Your task to perform on an android device: turn pop-ups off in chrome Image 0: 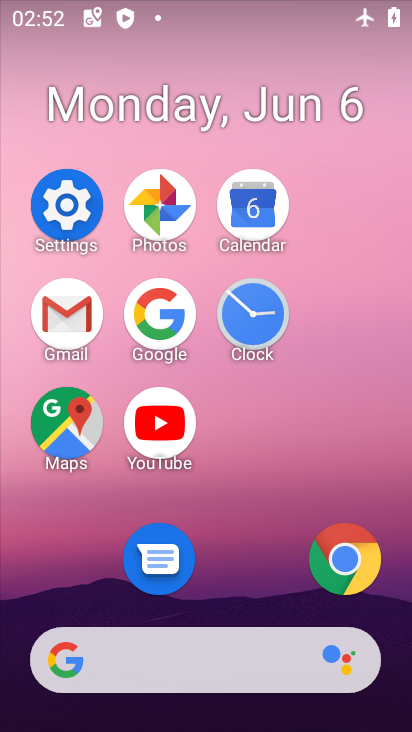
Step 0: click (81, 411)
Your task to perform on an android device: turn pop-ups off in chrome Image 1: 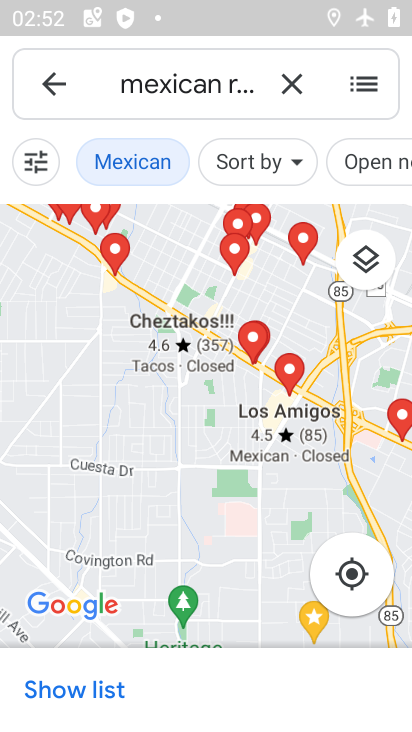
Step 1: press home button
Your task to perform on an android device: turn pop-ups off in chrome Image 2: 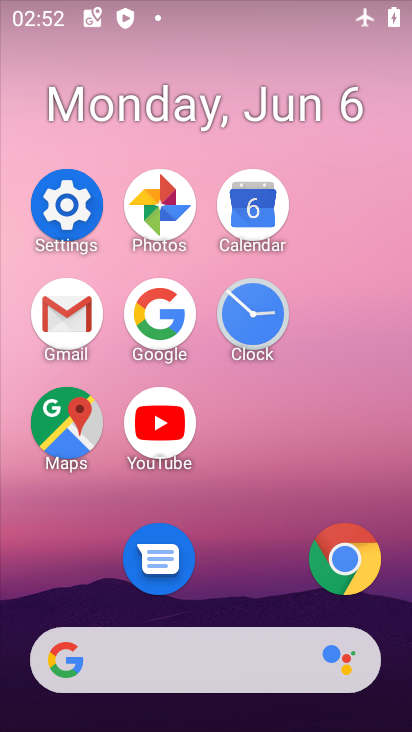
Step 2: click (356, 540)
Your task to perform on an android device: turn pop-ups off in chrome Image 3: 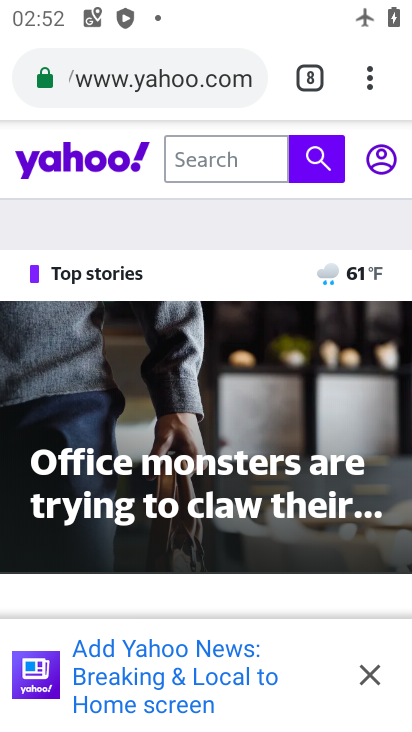
Step 3: click (364, 86)
Your task to perform on an android device: turn pop-ups off in chrome Image 4: 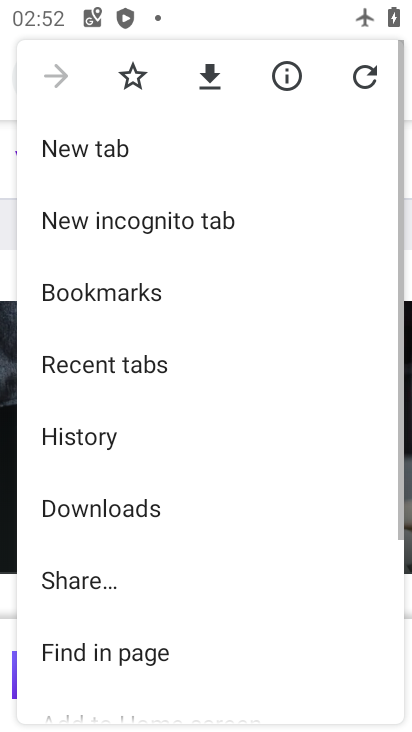
Step 4: drag from (247, 505) to (295, 187)
Your task to perform on an android device: turn pop-ups off in chrome Image 5: 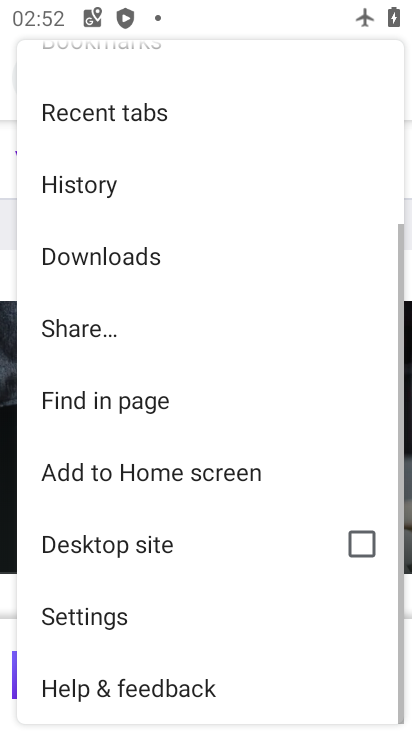
Step 5: click (120, 613)
Your task to perform on an android device: turn pop-ups off in chrome Image 6: 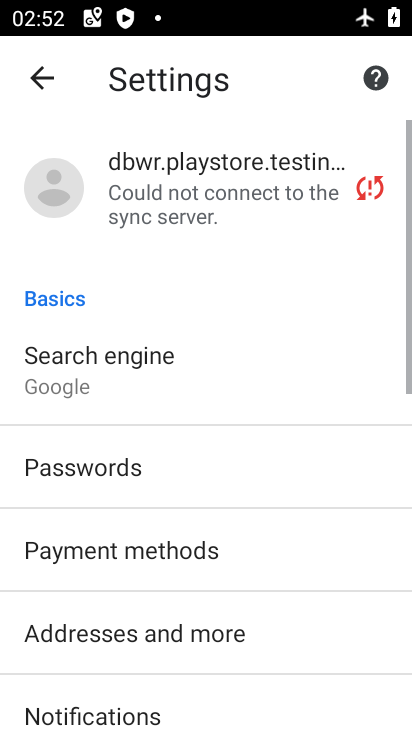
Step 6: drag from (133, 584) to (211, 262)
Your task to perform on an android device: turn pop-ups off in chrome Image 7: 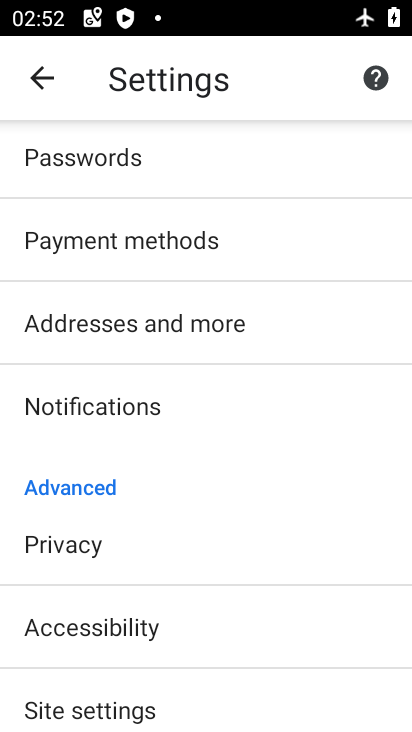
Step 7: drag from (174, 533) to (228, 253)
Your task to perform on an android device: turn pop-ups off in chrome Image 8: 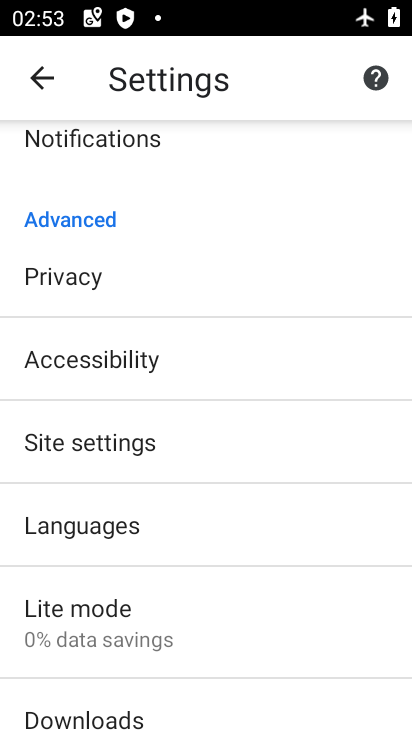
Step 8: click (178, 421)
Your task to perform on an android device: turn pop-ups off in chrome Image 9: 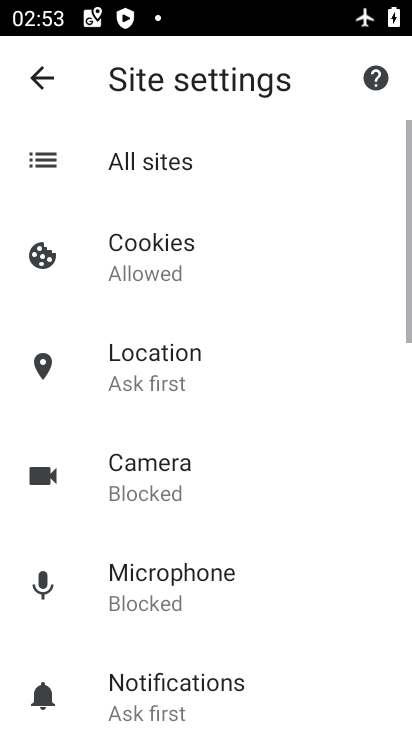
Step 9: drag from (190, 615) to (251, 278)
Your task to perform on an android device: turn pop-ups off in chrome Image 10: 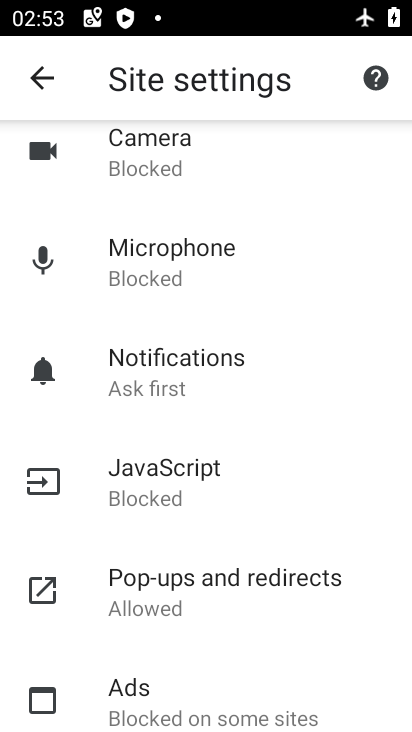
Step 10: click (176, 562)
Your task to perform on an android device: turn pop-ups off in chrome Image 11: 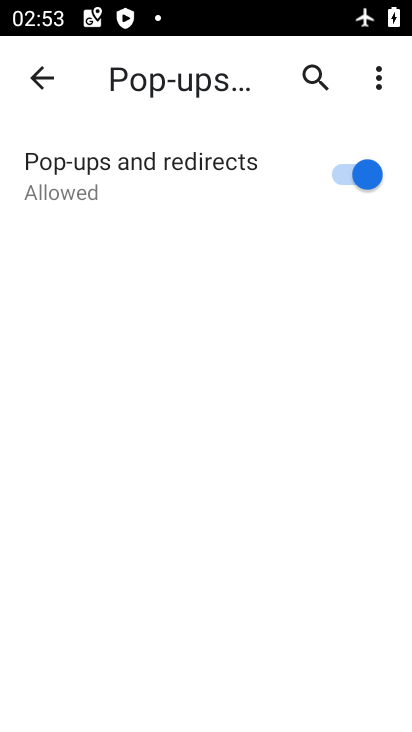
Step 11: click (361, 189)
Your task to perform on an android device: turn pop-ups off in chrome Image 12: 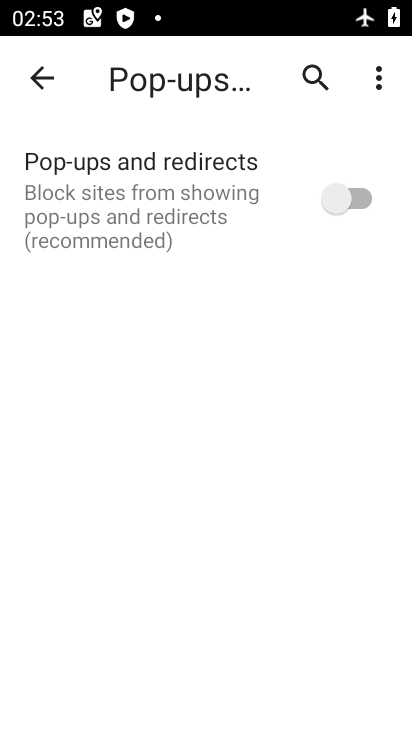
Step 12: task complete